Your task to perform on an android device: change your default location settings in chrome Image 0: 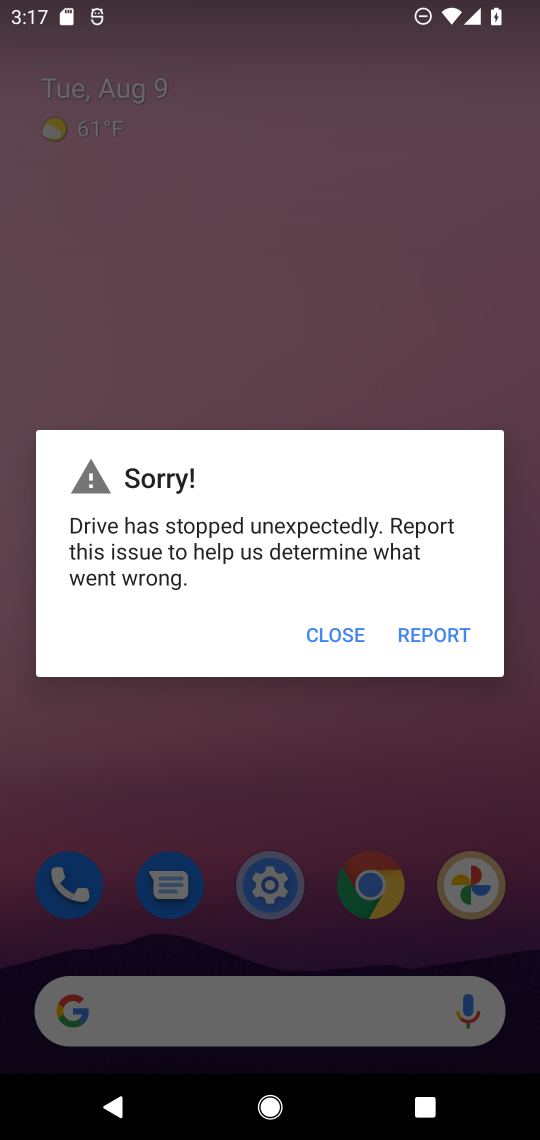
Step 0: click (361, 632)
Your task to perform on an android device: change your default location settings in chrome Image 1: 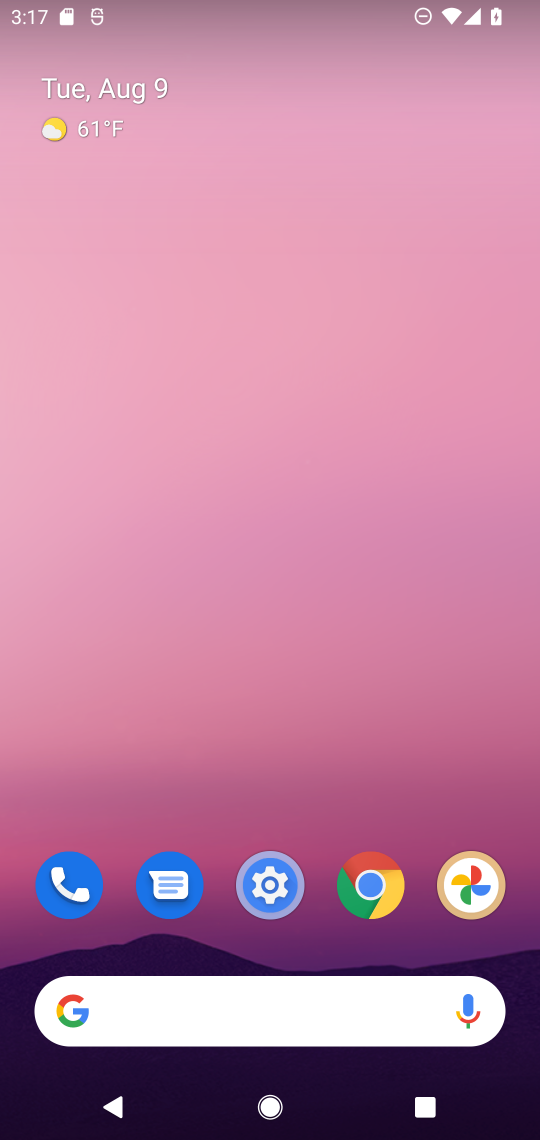
Step 1: click (373, 886)
Your task to perform on an android device: change your default location settings in chrome Image 2: 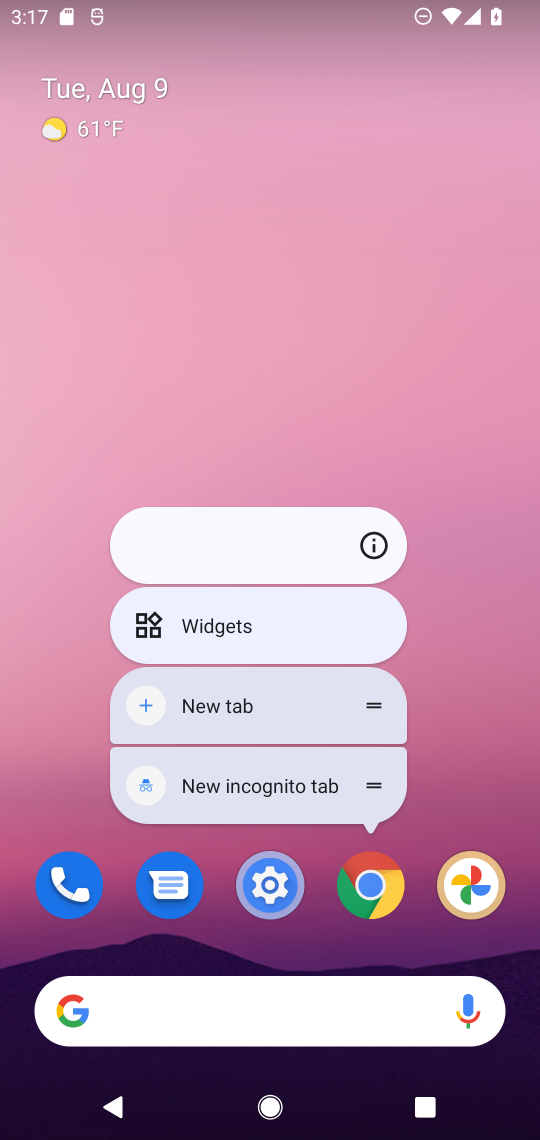
Step 2: click (256, 705)
Your task to perform on an android device: change your default location settings in chrome Image 3: 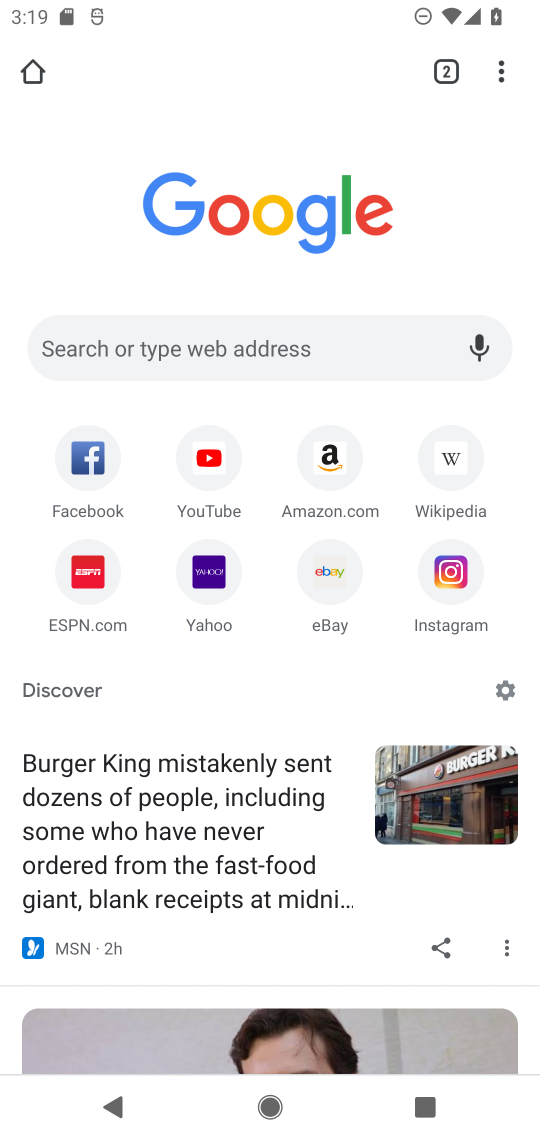
Step 3: task complete